Your task to perform on an android device: turn on airplane mode Image 0: 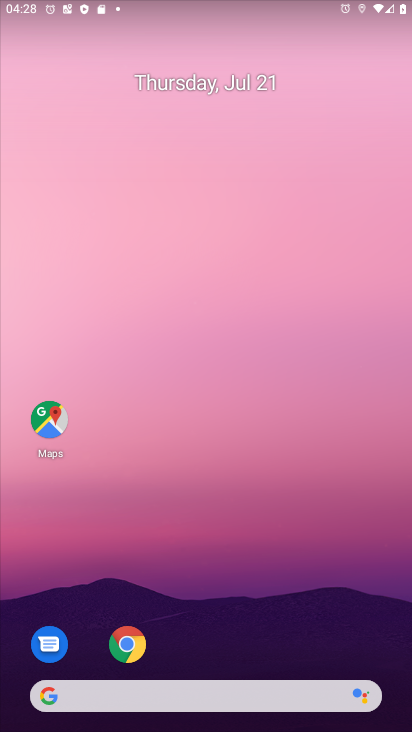
Step 0: drag from (295, 654) to (327, 36)
Your task to perform on an android device: turn on airplane mode Image 1: 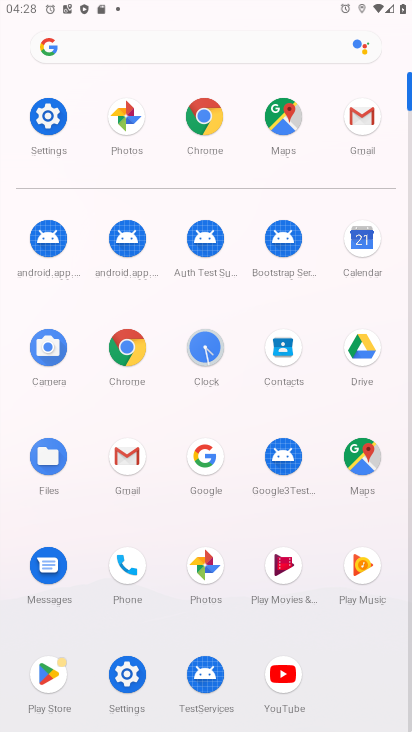
Step 1: click (48, 122)
Your task to perform on an android device: turn on airplane mode Image 2: 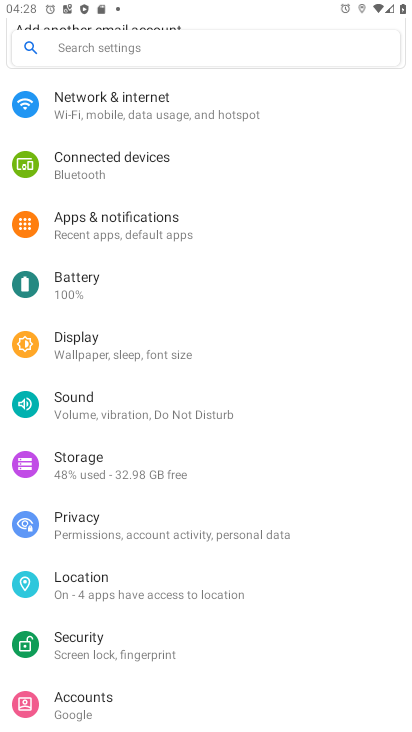
Step 2: click (151, 117)
Your task to perform on an android device: turn on airplane mode Image 3: 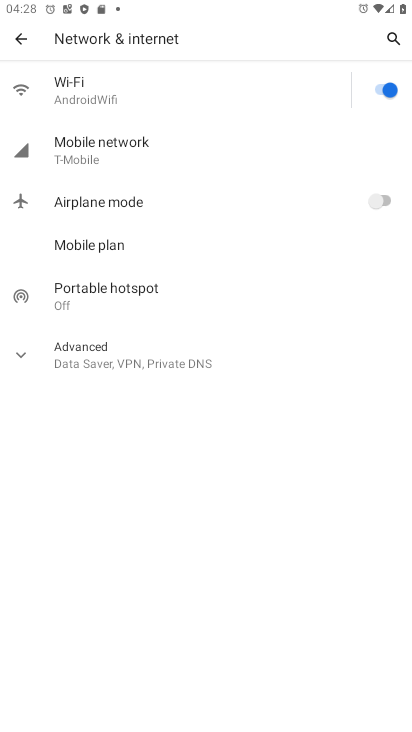
Step 3: click (386, 194)
Your task to perform on an android device: turn on airplane mode Image 4: 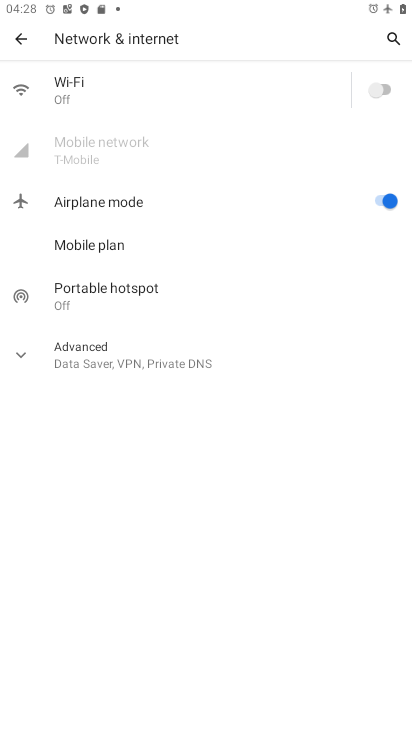
Step 4: task complete